Your task to perform on an android device: change text size in settings app Image 0: 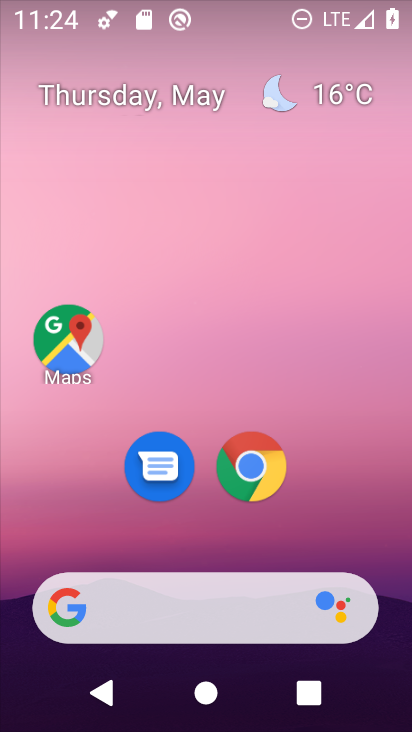
Step 0: drag from (302, 553) to (377, 260)
Your task to perform on an android device: change text size in settings app Image 1: 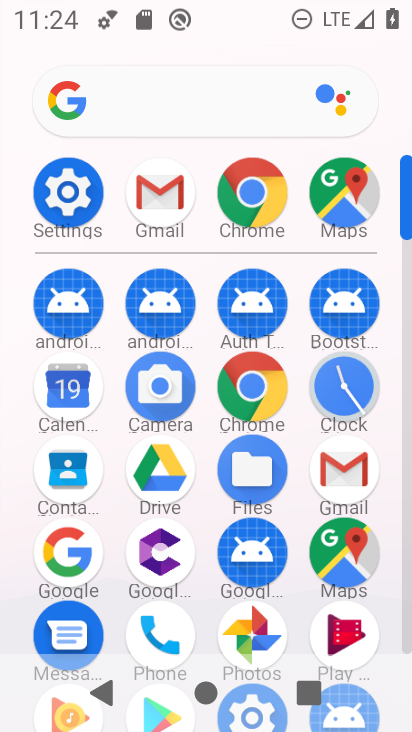
Step 1: click (93, 192)
Your task to perform on an android device: change text size in settings app Image 2: 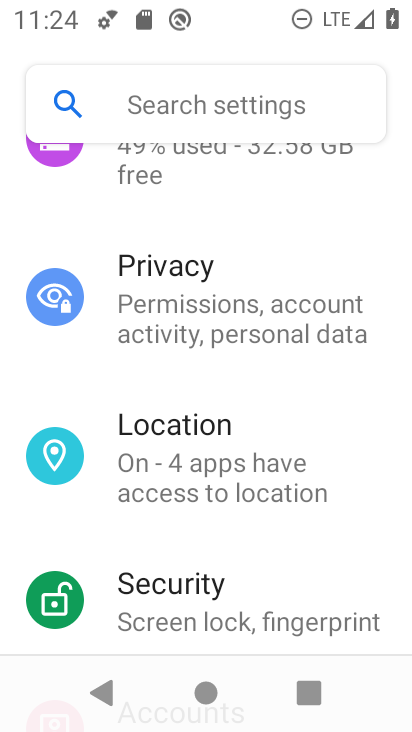
Step 2: drag from (252, 584) to (297, 231)
Your task to perform on an android device: change text size in settings app Image 3: 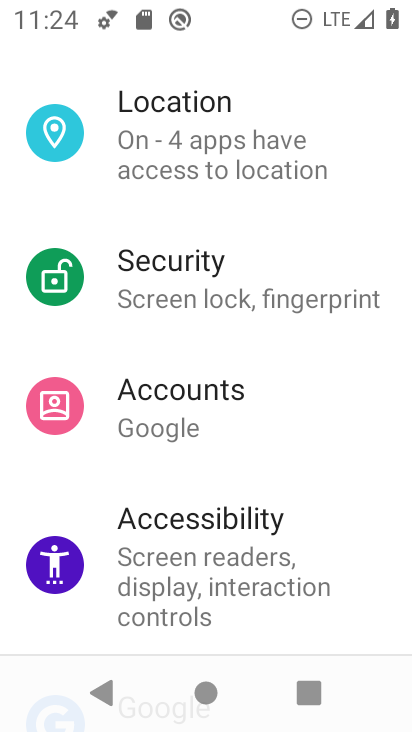
Step 3: click (206, 542)
Your task to perform on an android device: change text size in settings app Image 4: 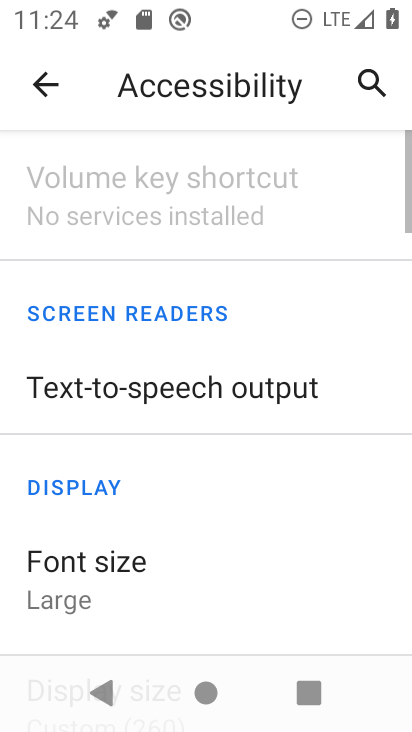
Step 4: click (139, 577)
Your task to perform on an android device: change text size in settings app Image 5: 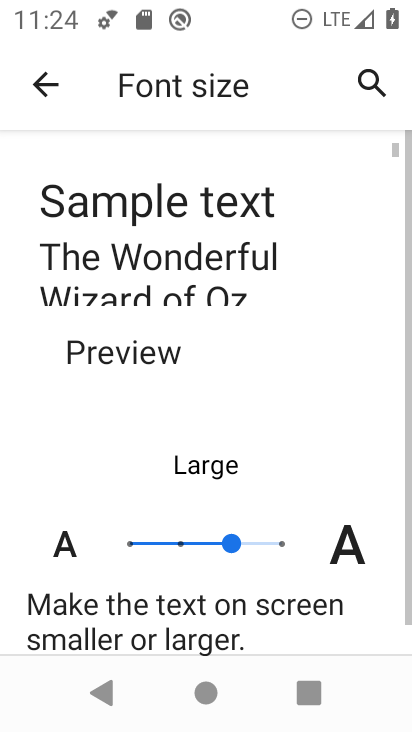
Step 5: click (199, 537)
Your task to perform on an android device: change text size in settings app Image 6: 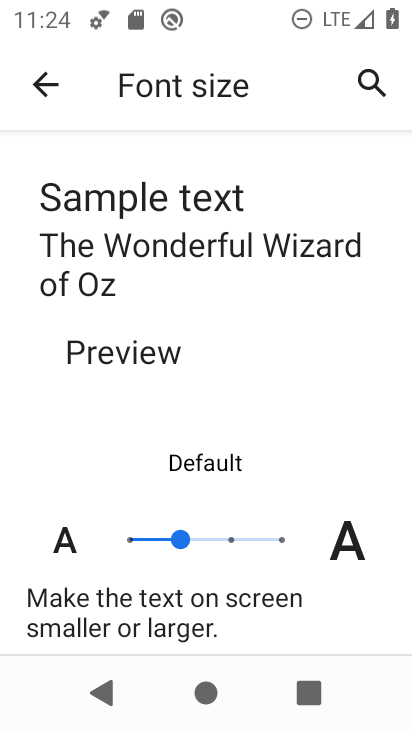
Step 6: task complete